Your task to perform on an android device: Go to battery settings Image 0: 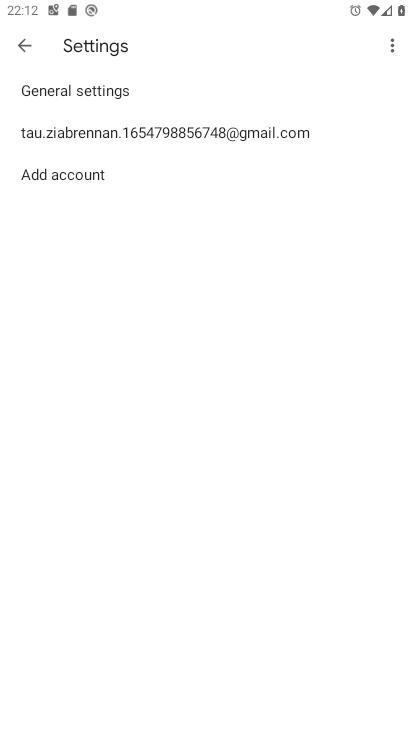
Step 0: press home button
Your task to perform on an android device: Go to battery settings Image 1: 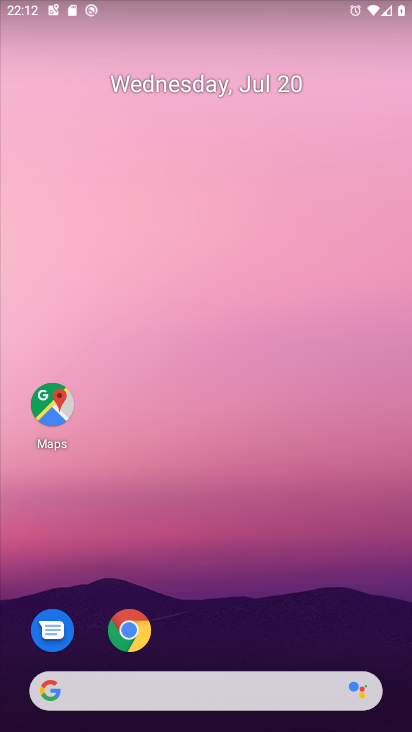
Step 1: drag from (202, 682) to (199, 31)
Your task to perform on an android device: Go to battery settings Image 2: 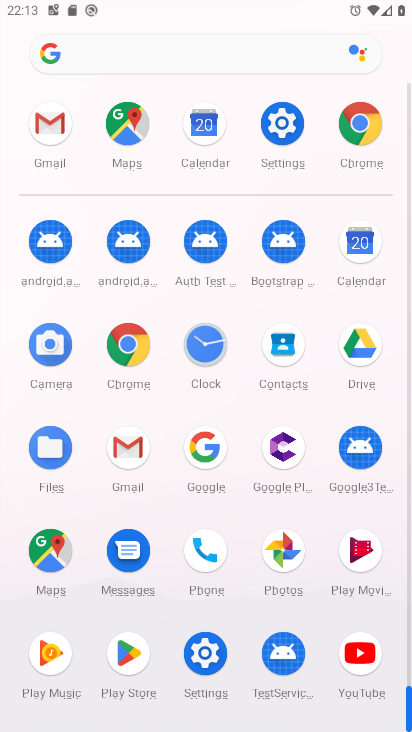
Step 2: click (218, 655)
Your task to perform on an android device: Go to battery settings Image 3: 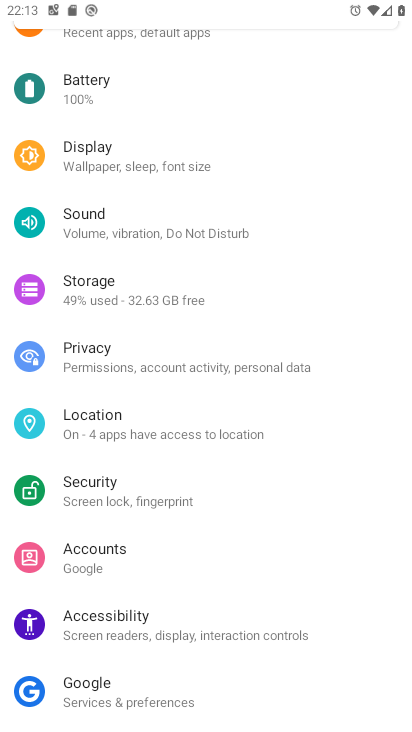
Step 3: click (88, 101)
Your task to perform on an android device: Go to battery settings Image 4: 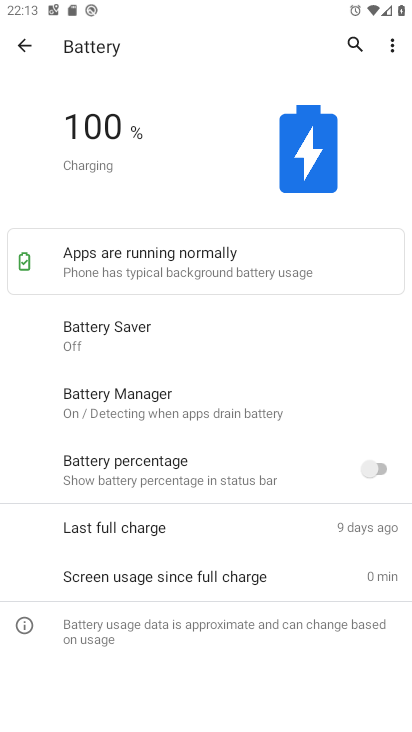
Step 4: task complete